Your task to perform on an android device: Open display settings Image 0: 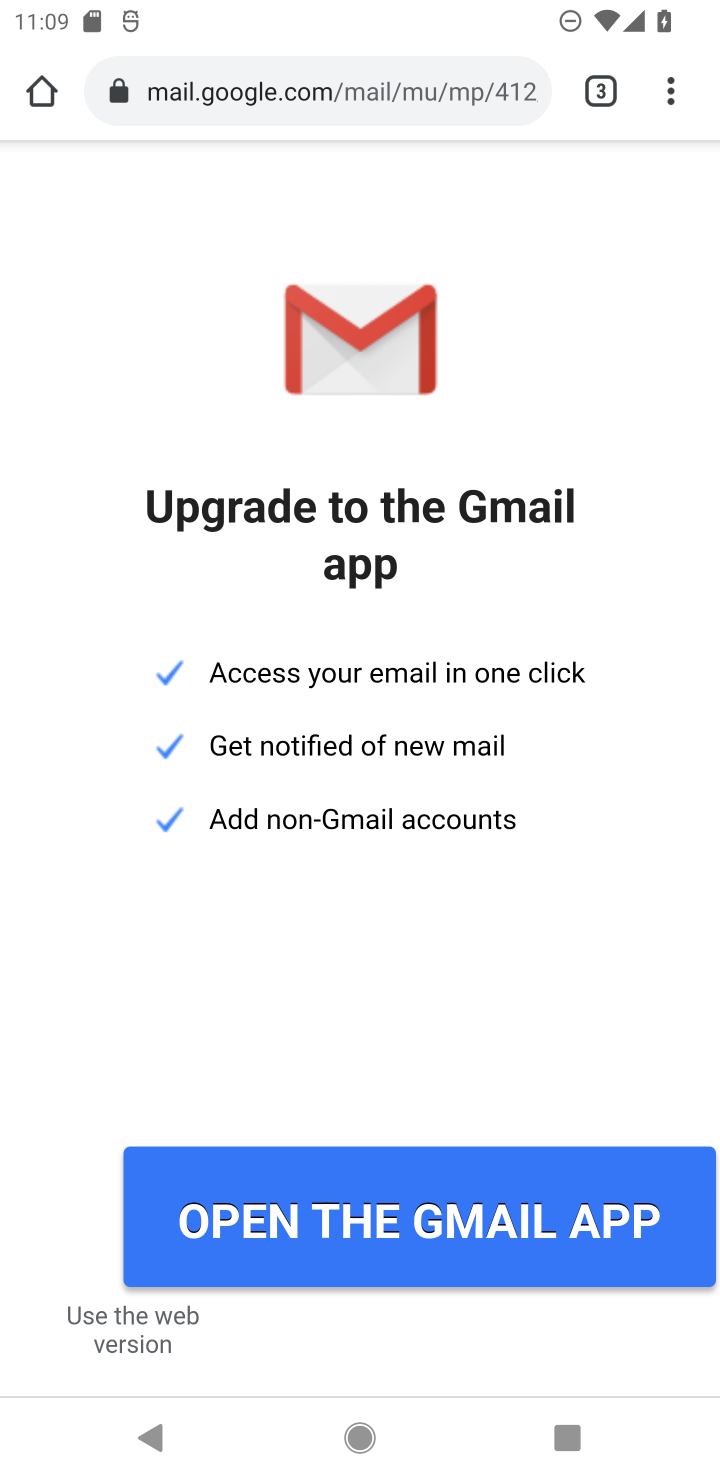
Step 0: click (363, 1431)
Your task to perform on an android device: Open display settings Image 1: 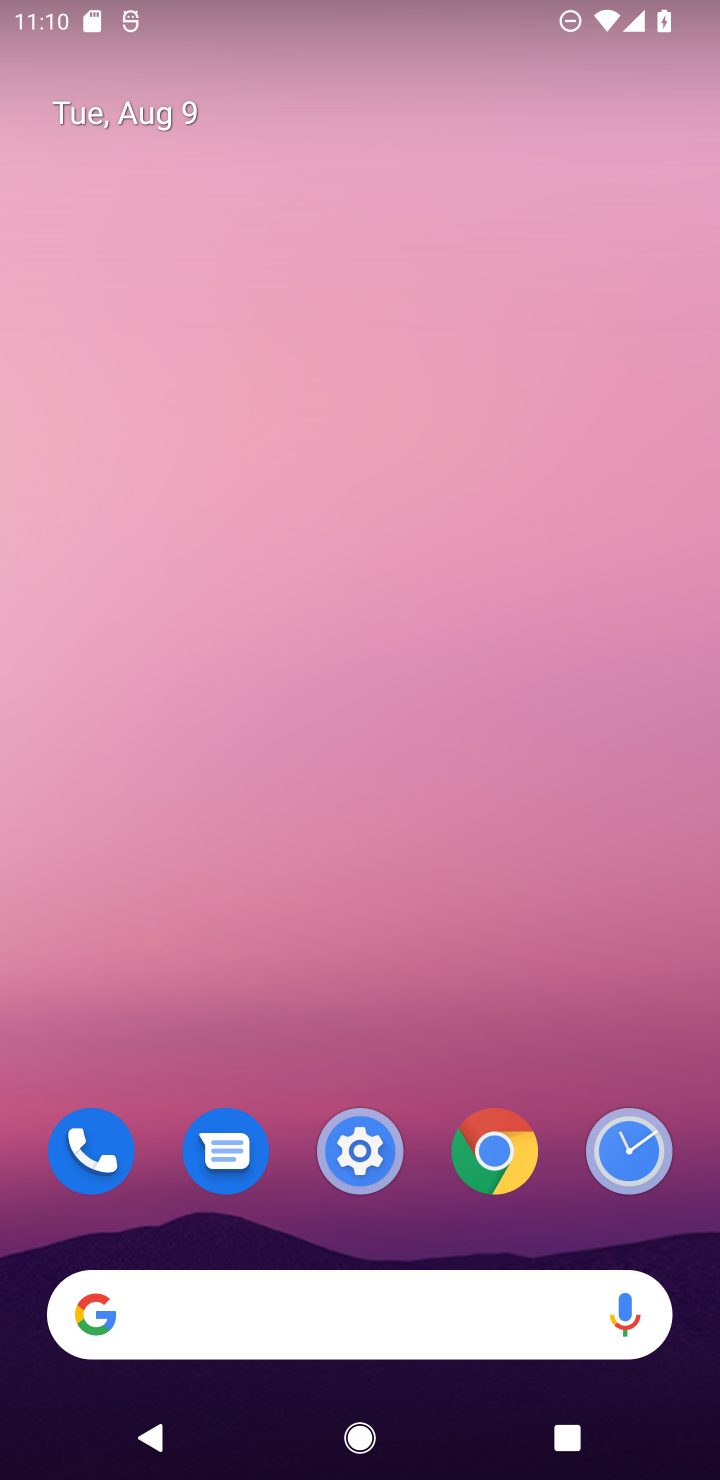
Step 1: click (355, 1140)
Your task to perform on an android device: Open display settings Image 2: 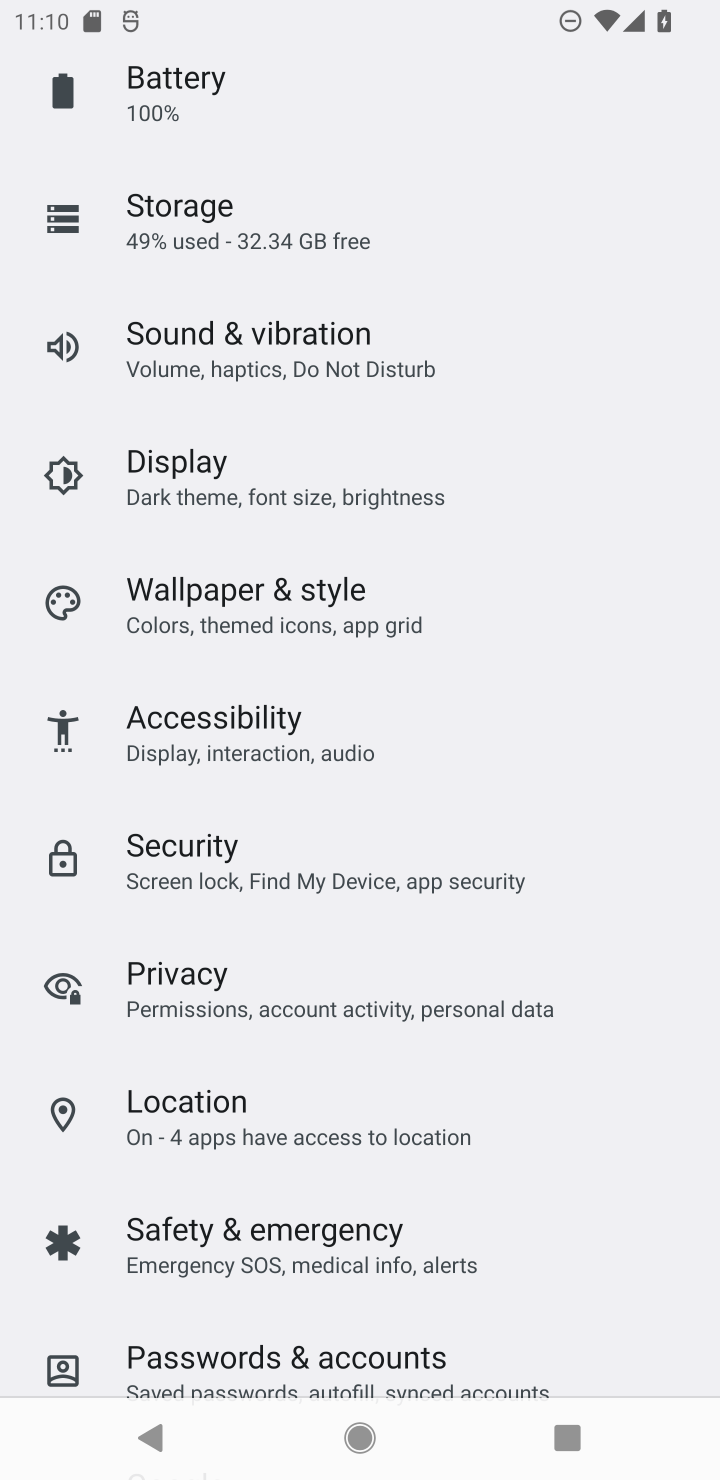
Step 2: click (332, 472)
Your task to perform on an android device: Open display settings Image 3: 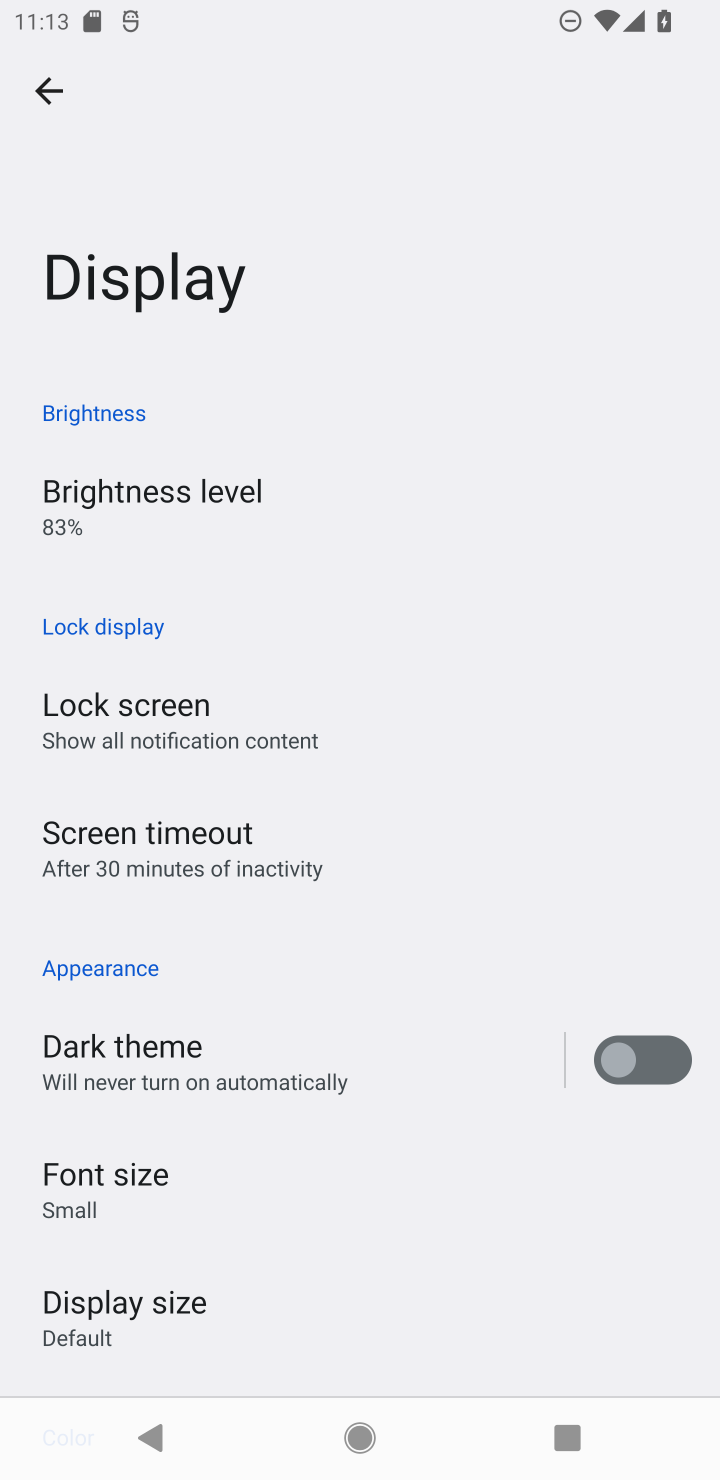
Step 3: task complete